Your task to perform on an android device: toggle sleep mode Image 0: 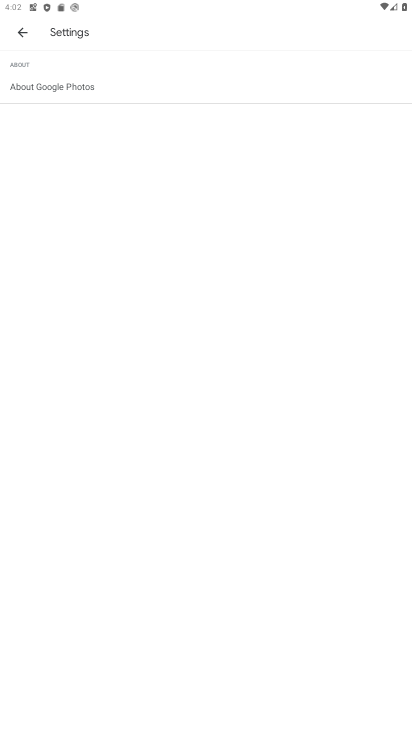
Step 0: press home button
Your task to perform on an android device: toggle sleep mode Image 1: 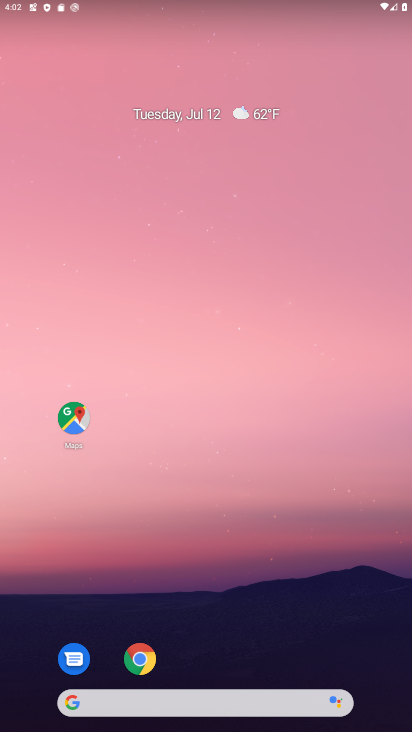
Step 1: drag from (218, 657) to (167, 325)
Your task to perform on an android device: toggle sleep mode Image 2: 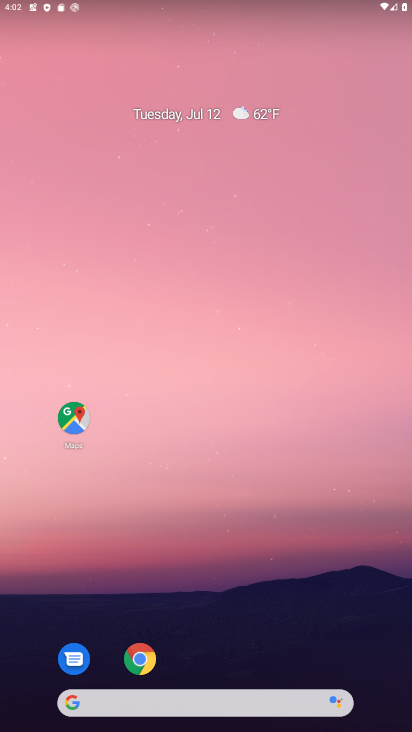
Step 2: drag from (206, 671) to (200, 221)
Your task to perform on an android device: toggle sleep mode Image 3: 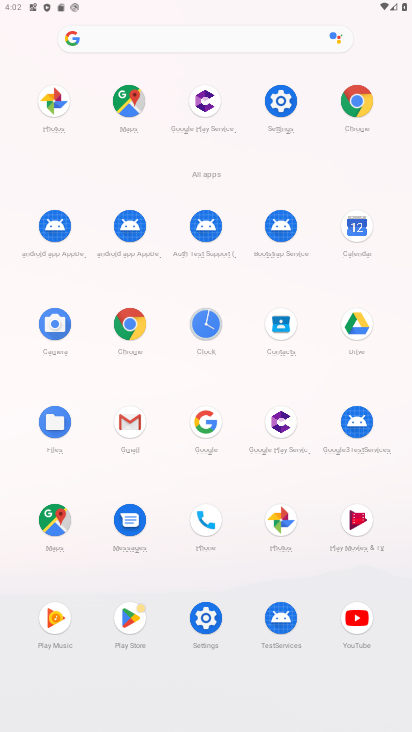
Step 3: click (280, 100)
Your task to perform on an android device: toggle sleep mode Image 4: 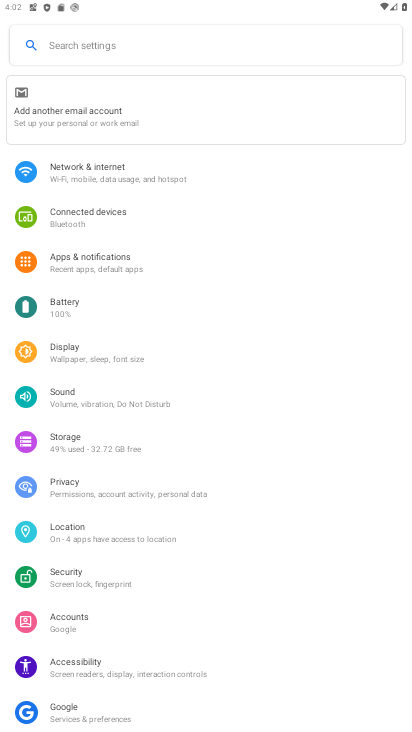
Step 4: click (77, 345)
Your task to perform on an android device: toggle sleep mode Image 5: 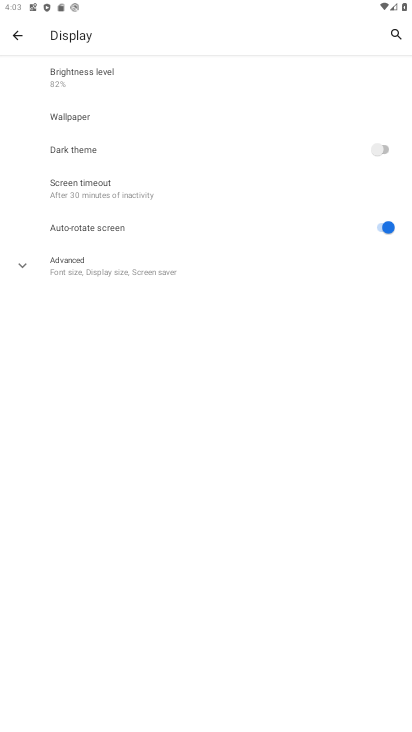
Step 5: click (12, 260)
Your task to perform on an android device: toggle sleep mode Image 6: 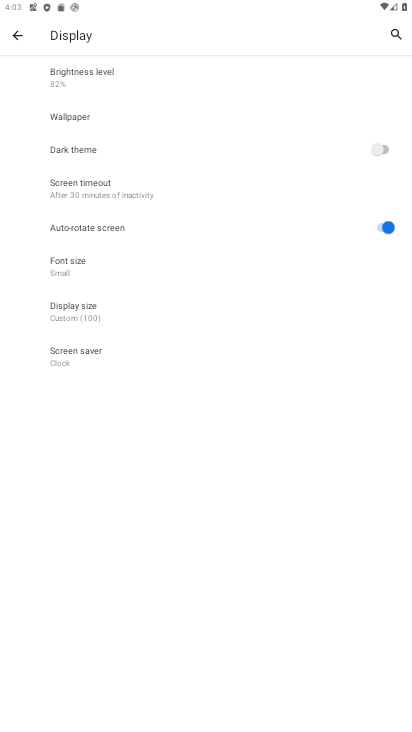
Step 6: task complete